Your task to perform on an android device: What is the recent news? Image 0: 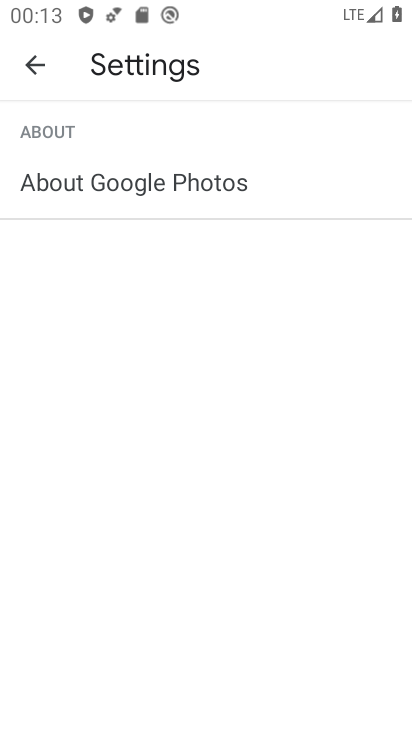
Step 0: press home button
Your task to perform on an android device: What is the recent news? Image 1: 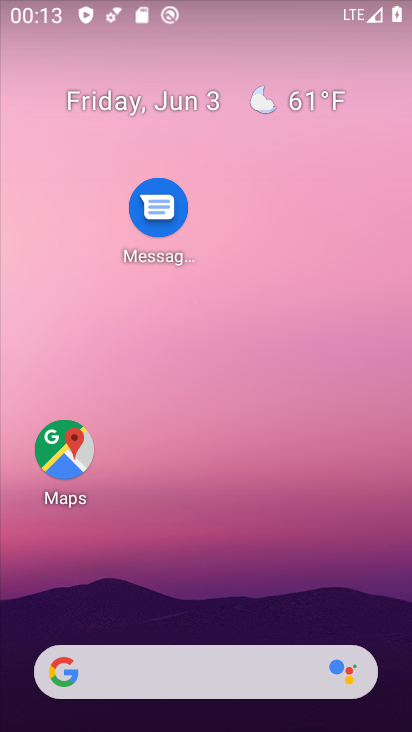
Step 1: click (171, 651)
Your task to perform on an android device: What is the recent news? Image 2: 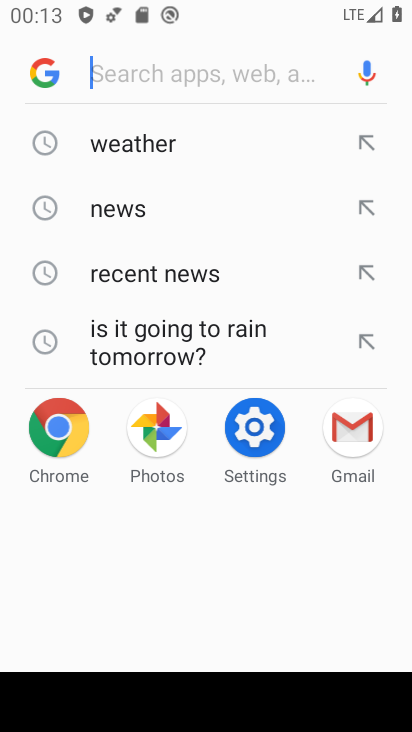
Step 2: click (143, 218)
Your task to perform on an android device: What is the recent news? Image 3: 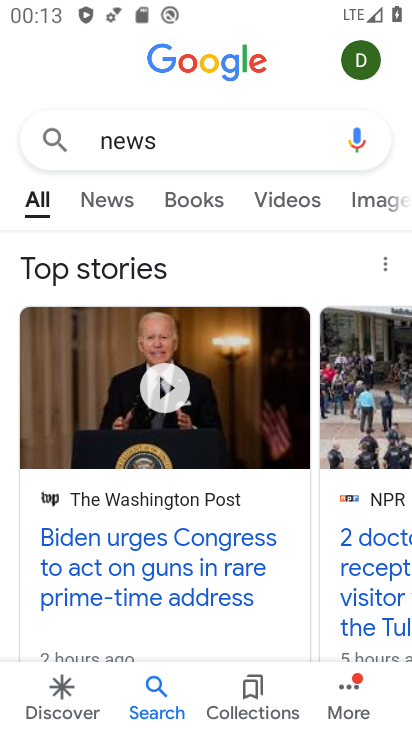
Step 3: click (96, 202)
Your task to perform on an android device: What is the recent news? Image 4: 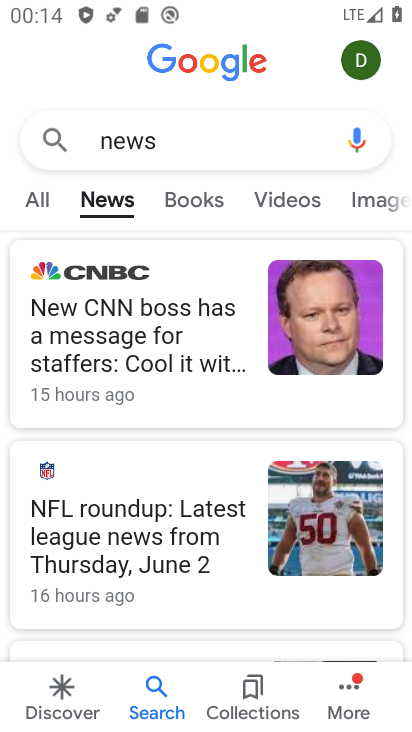
Step 4: task complete